Your task to perform on an android device: Open privacy settings Image 0: 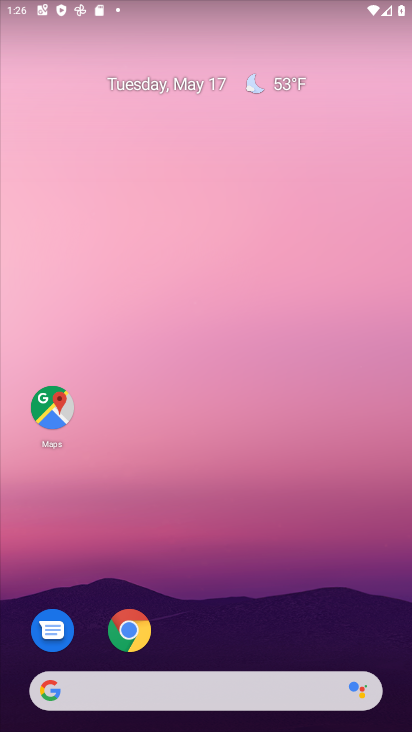
Step 0: drag from (202, 681) to (245, 81)
Your task to perform on an android device: Open privacy settings Image 1: 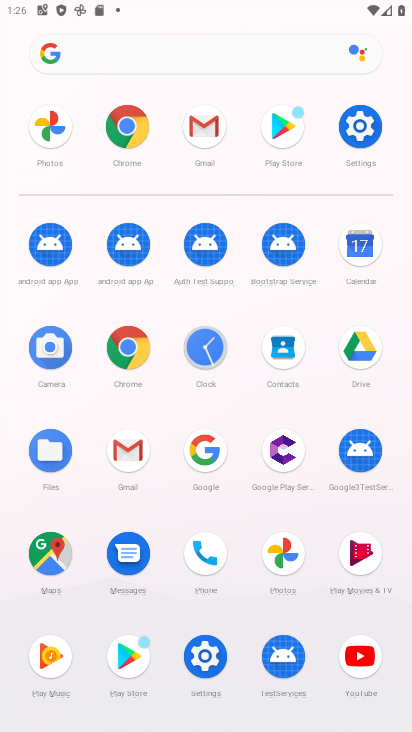
Step 1: click (352, 154)
Your task to perform on an android device: Open privacy settings Image 2: 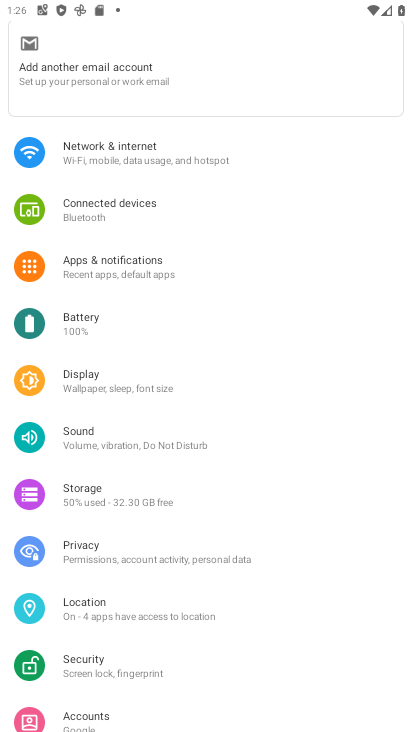
Step 2: click (114, 545)
Your task to perform on an android device: Open privacy settings Image 3: 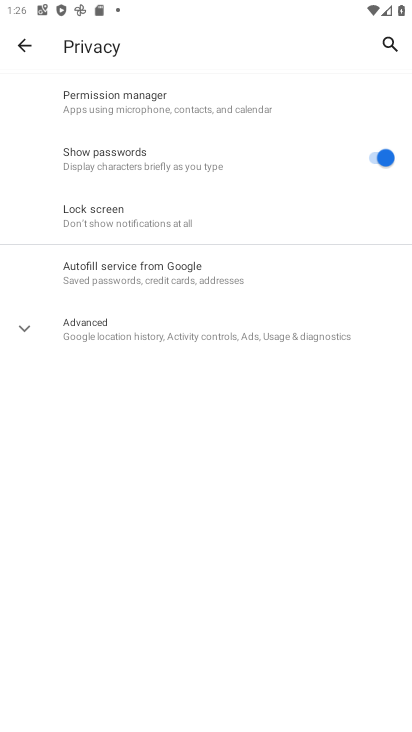
Step 3: click (188, 348)
Your task to perform on an android device: Open privacy settings Image 4: 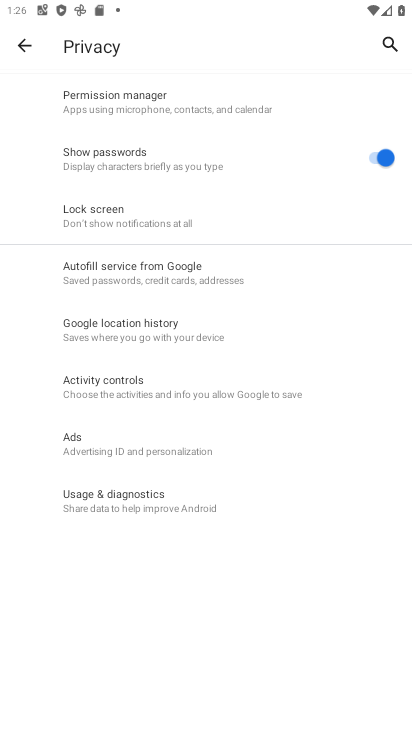
Step 4: task complete